Your task to perform on an android device: Open the stopwatch Image 0: 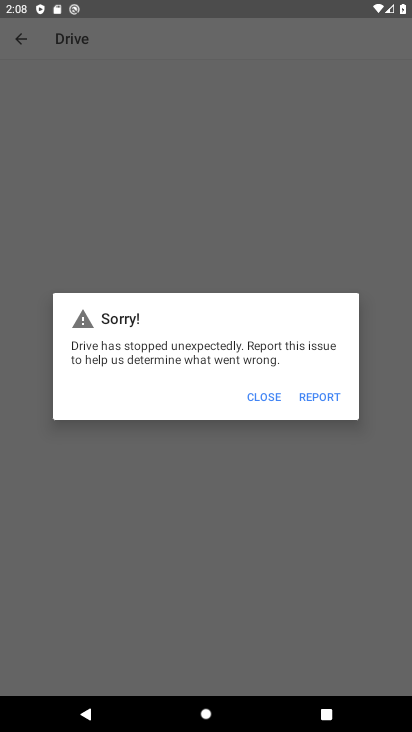
Step 0: press home button
Your task to perform on an android device: Open the stopwatch Image 1: 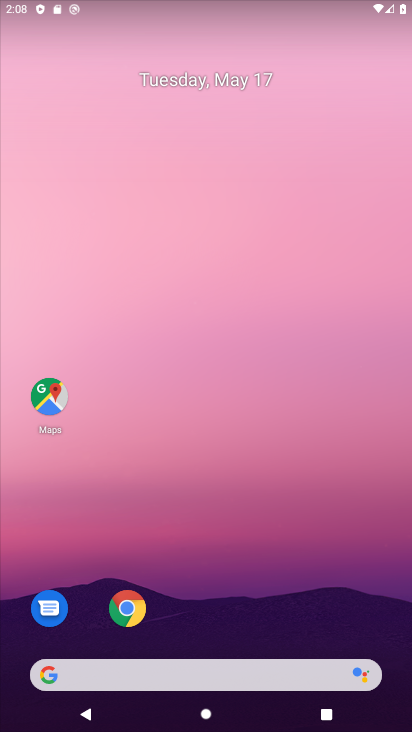
Step 1: click (145, 224)
Your task to perform on an android device: Open the stopwatch Image 2: 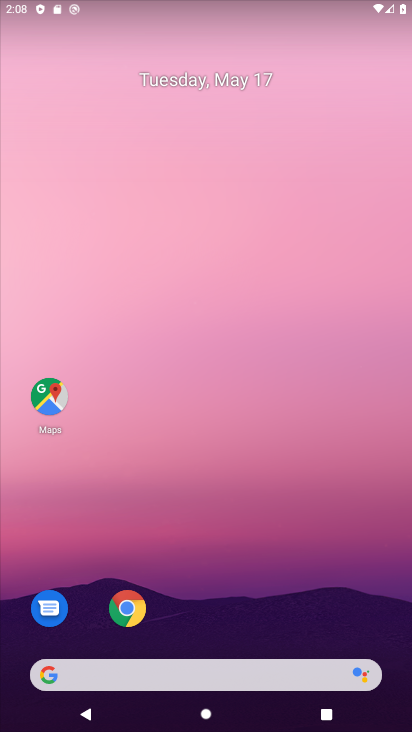
Step 2: drag from (186, 625) to (190, 225)
Your task to perform on an android device: Open the stopwatch Image 3: 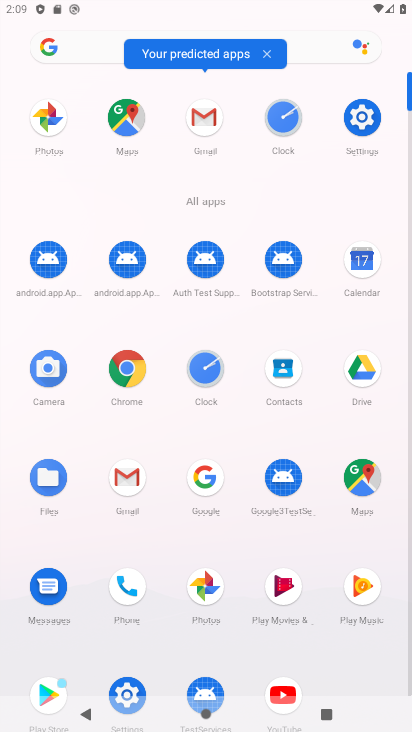
Step 3: click (274, 123)
Your task to perform on an android device: Open the stopwatch Image 4: 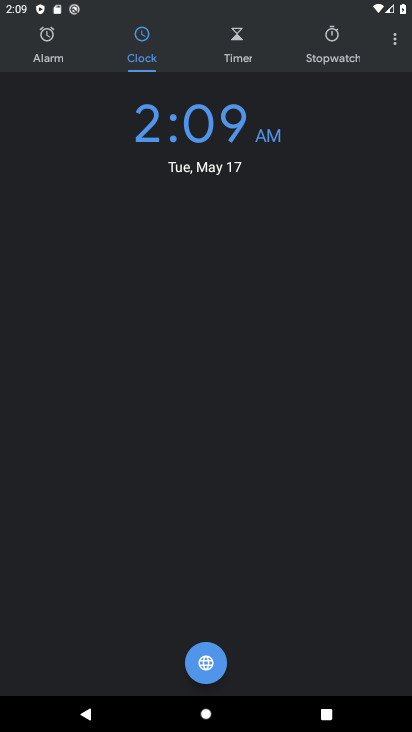
Step 4: click (342, 51)
Your task to perform on an android device: Open the stopwatch Image 5: 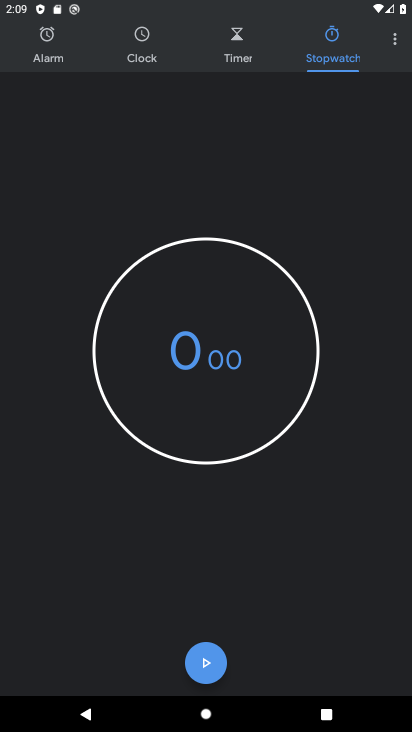
Step 5: task complete